Your task to perform on an android device: What's on my calendar tomorrow? Image 0: 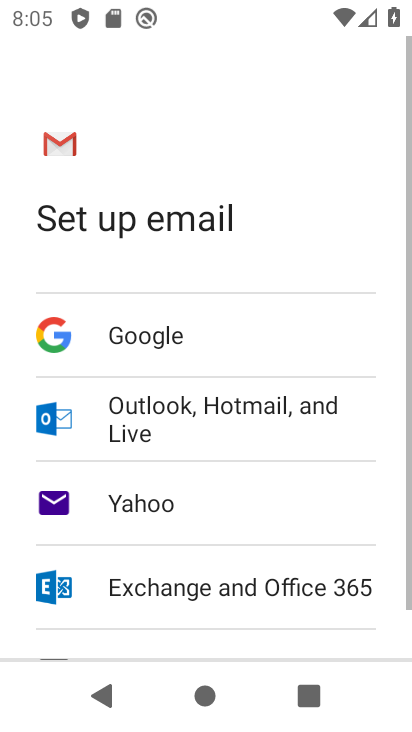
Step 0: click (411, 349)
Your task to perform on an android device: What's on my calendar tomorrow? Image 1: 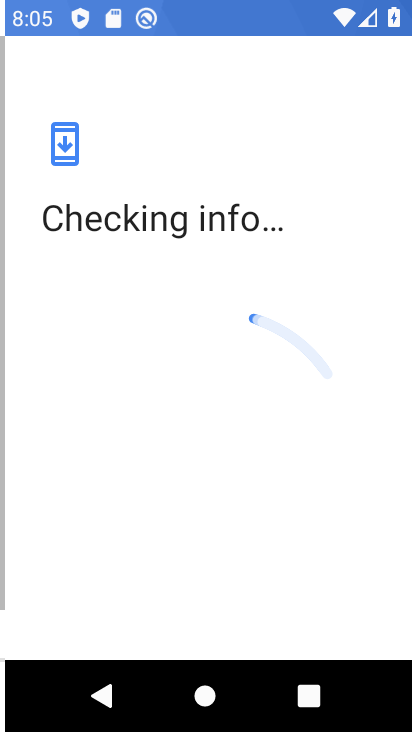
Step 1: press home button
Your task to perform on an android device: What's on my calendar tomorrow? Image 2: 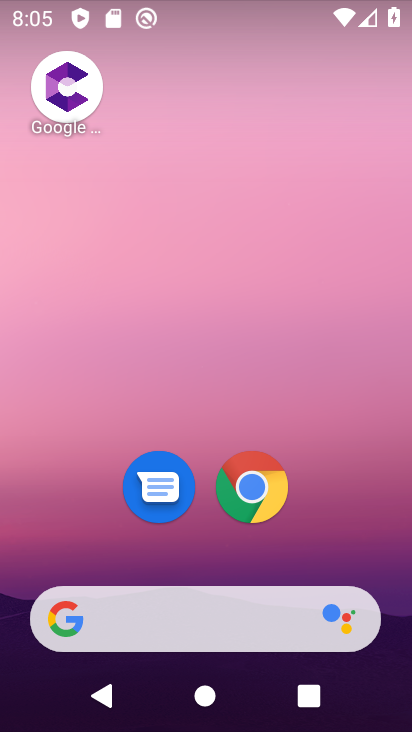
Step 2: drag from (342, 571) to (297, 9)
Your task to perform on an android device: What's on my calendar tomorrow? Image 3: 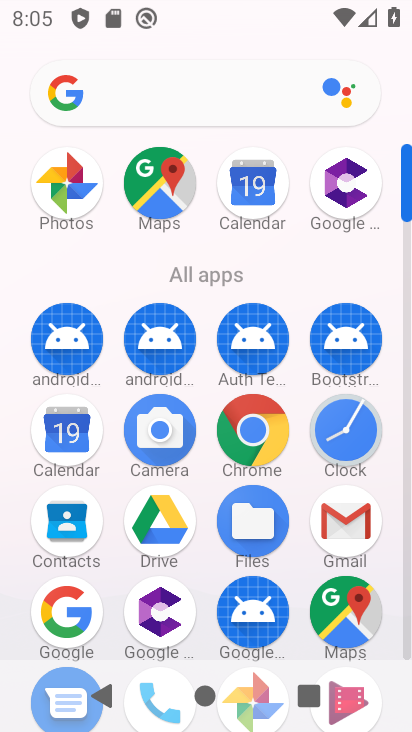
Step 3: click (84, 438)
Your task to perform on an android device: What's on my calendar tomorrow? Image 4: 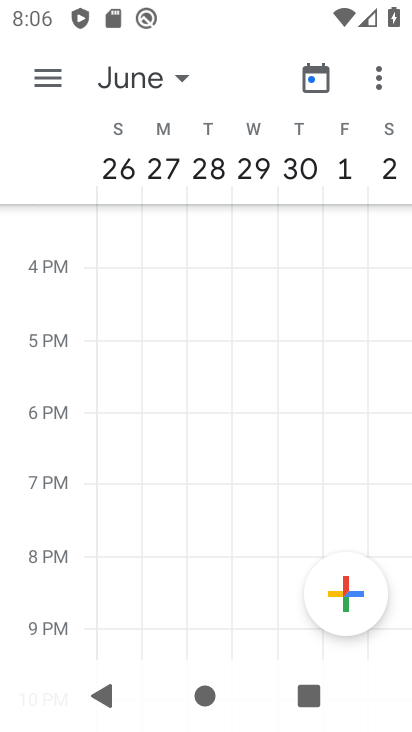
Step 4: click (58, 77)
Your task to perform on an android device: What's on my calendar tomorrow? Image 5: 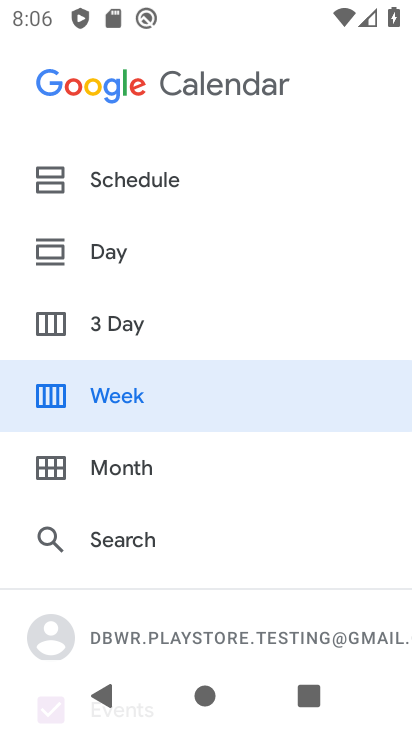
Step 5: click (142, 239)
Your task to perform on an android device: What's on my calendar tomorrow? Image 6: 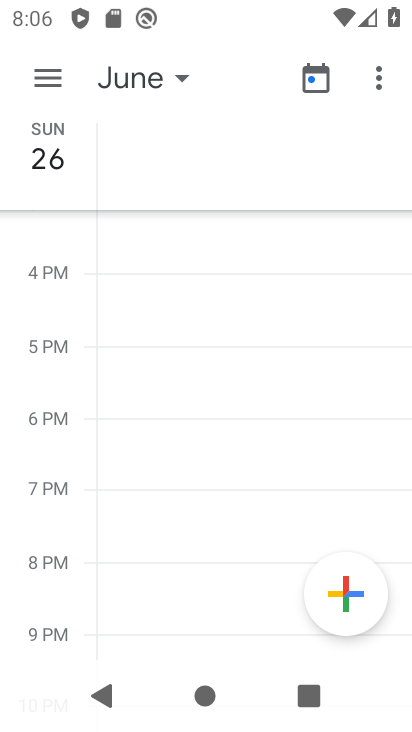
Step 6: click (149, 78)
Your task to perform on an android device: What's on my calendar tomorrow? Image 7: 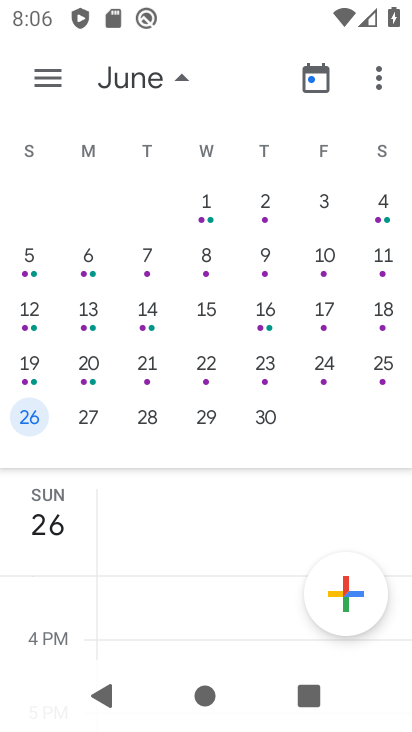
Step 7: drag from (51, 321) to (399, 301)
Your task to perform on an android device: What's on my calendar tomorrow? Image 8: 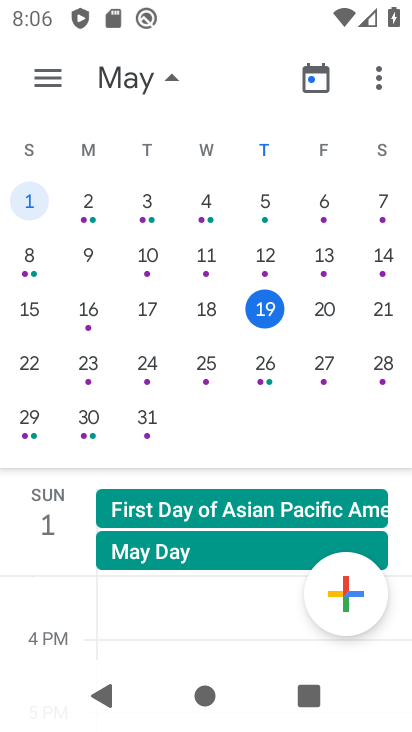
Step 8: click (321, 308)
Your task to perform on an android device: What's on my calendar tomorrow? Image 9: 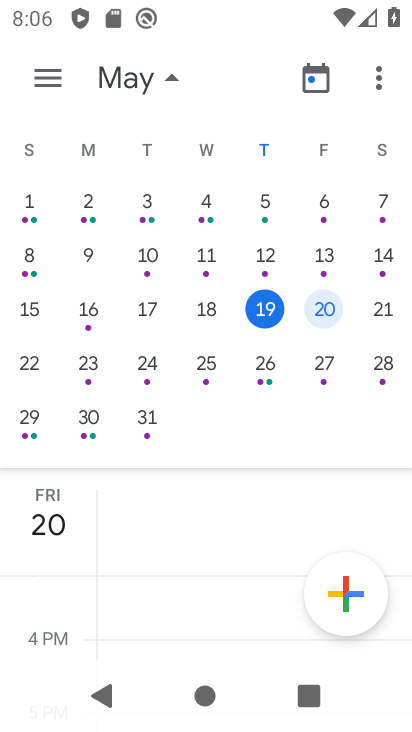
Step 9: task complete